Your task to perform on an android device: open app "NewsBreak: Local News & Alerts" (install if not already installed), go to login, and select forgot password Image 0: 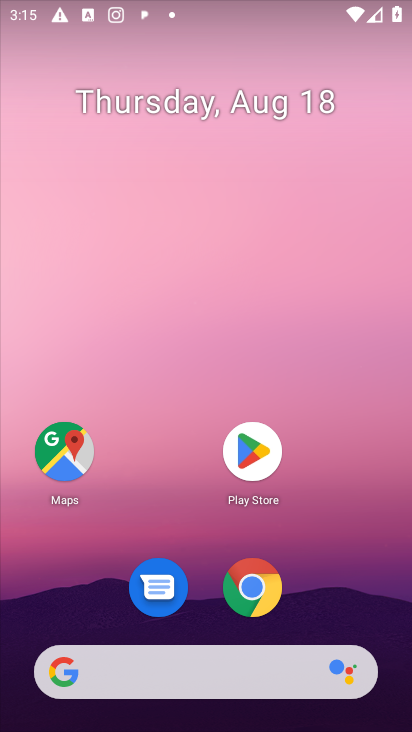
Step 0: press home button
Your task to perform on an android device: open app "NewsBreak: Local News & Alerts" (install if not already installed), go to login, and select forgot password Image 1: 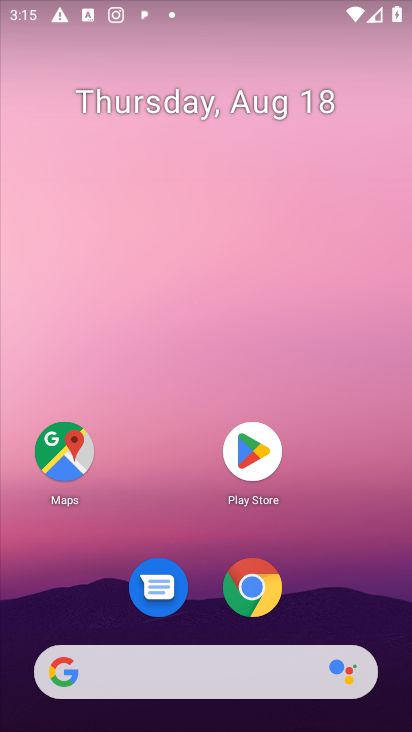
Step 1: click (250, 447)
Your task to perform on an android device: open app "NewsBreak: Local News & Alerts" (install if not already installed), go to login, and select forgot password Image 2: 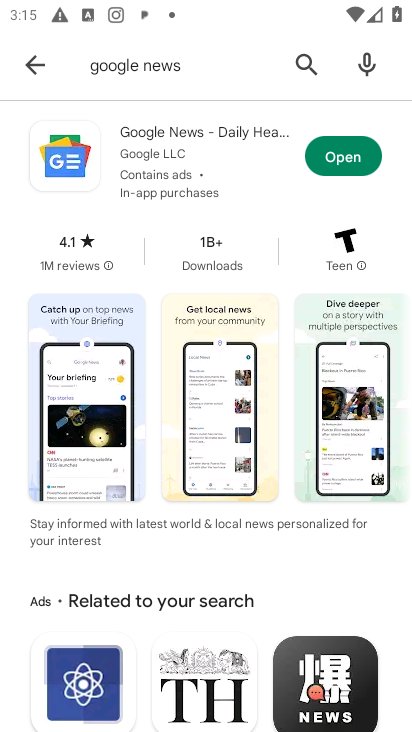
Step 2: click (304, 52)
Your task to perform on an android device: open app "NewsBreak: Local News & Alerts" (install if not already installed), go to login, and select forgot password Image 3: 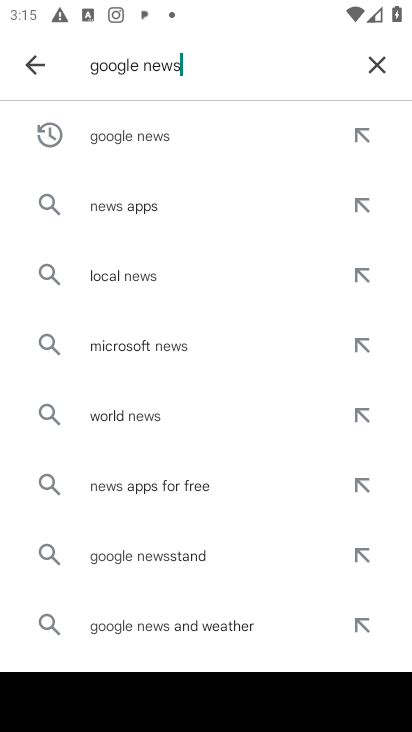
Step 3: click (366, 67)
Your task to perform on an android device: open app "NewsBreak: Local News & Alerts" (install if not already installed), go to login, and select forgot password Image 4: 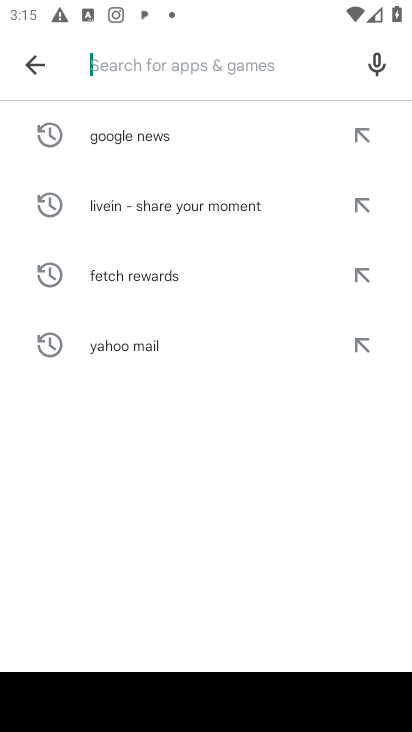
Step 4: type "NewsBreak: Local News & Alerts"
Your task to perform on an android device: open app "NewsBreak: Local News & Alerts" (install if not already installed), go to login, and select forgot password Image 5: 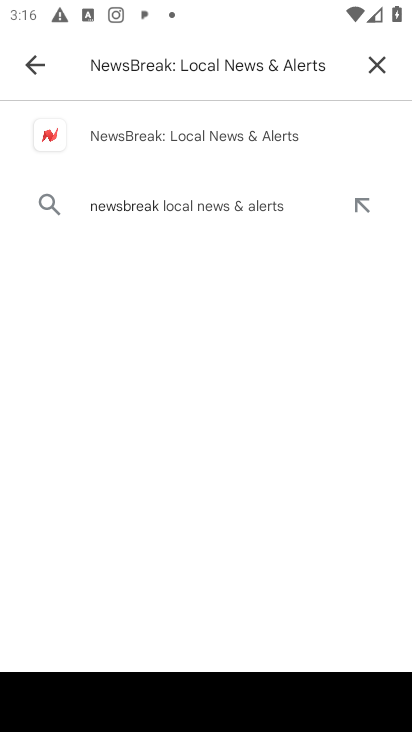
Step 5: click (146, 120)
Your task to perform on an android device: open app "NewsBreak: Local News & Alerts" (install if not already installed), go to login, and select forgot password Image 6: 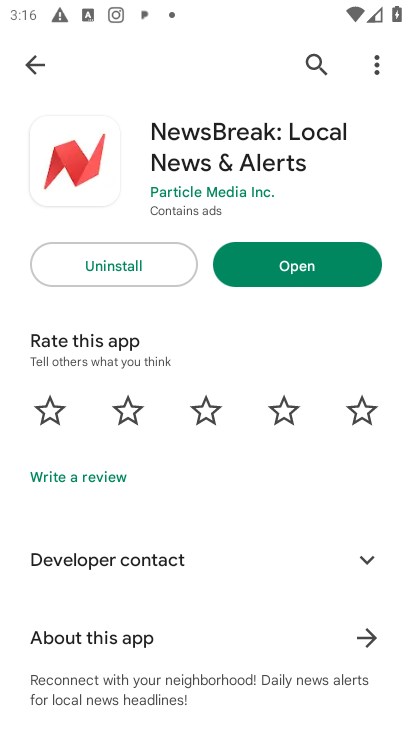
Step 6: click (280, 271)
Your task to perform on an android device: open app "NewsBreak: Local News & Alerts" (install if not already installed), go to login, and select forgot password Image 7: 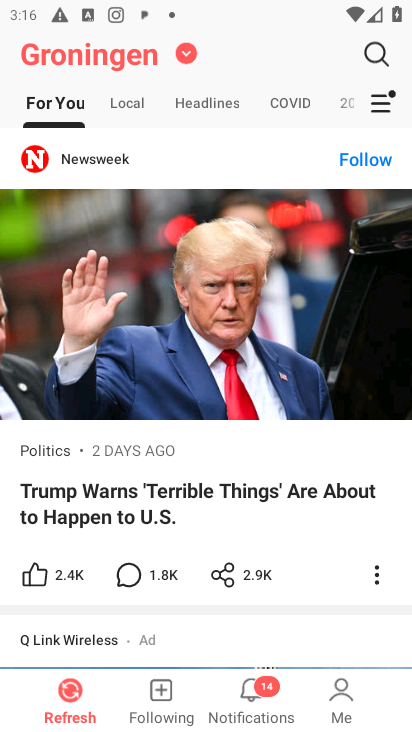
Step 7: task complete